Your task to perform on an android device: Clear the shopping cart on ebay.com. Add razer nari to the cart on ebay.com Image 0: 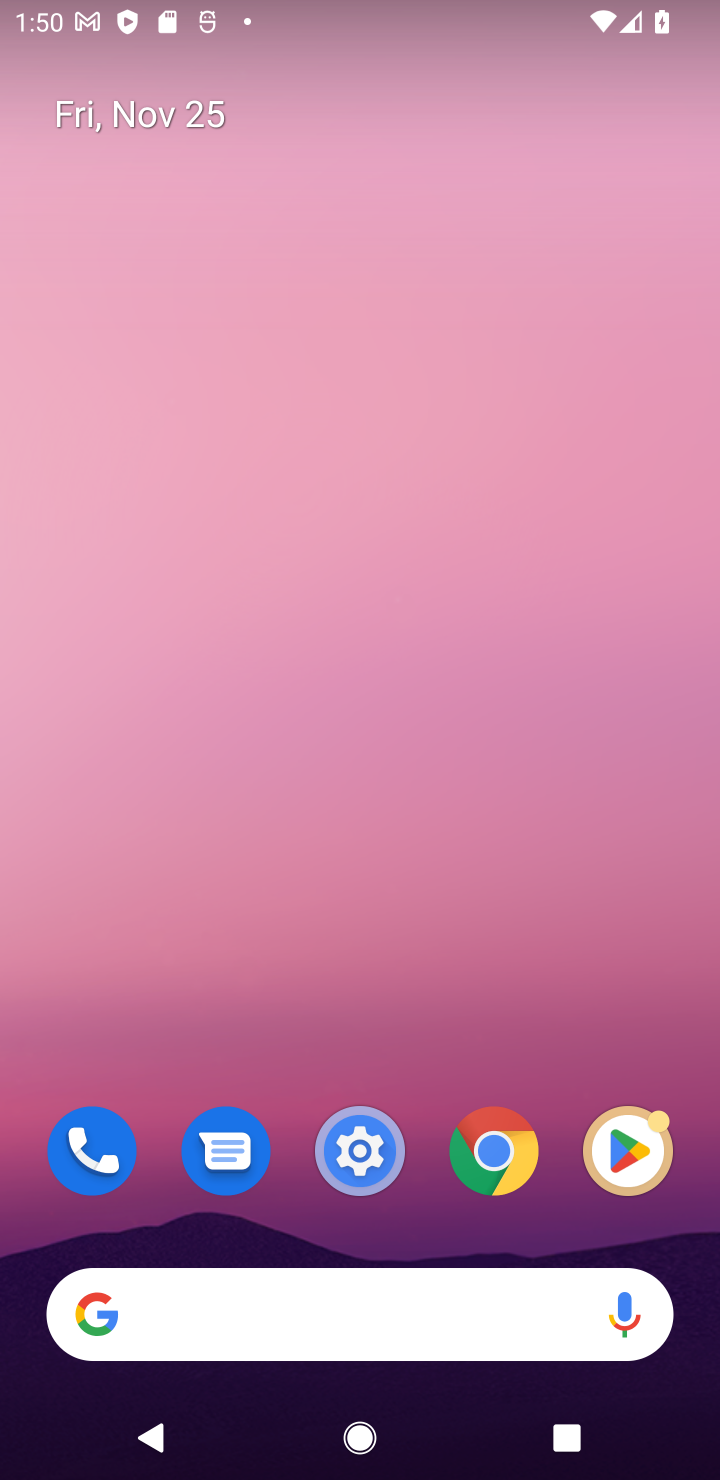
Step 0: press home button
Your task to perform on an android device: Clear the shopping cart on ebay.com. Add razer nari to the cart on ebay.com Image 1: 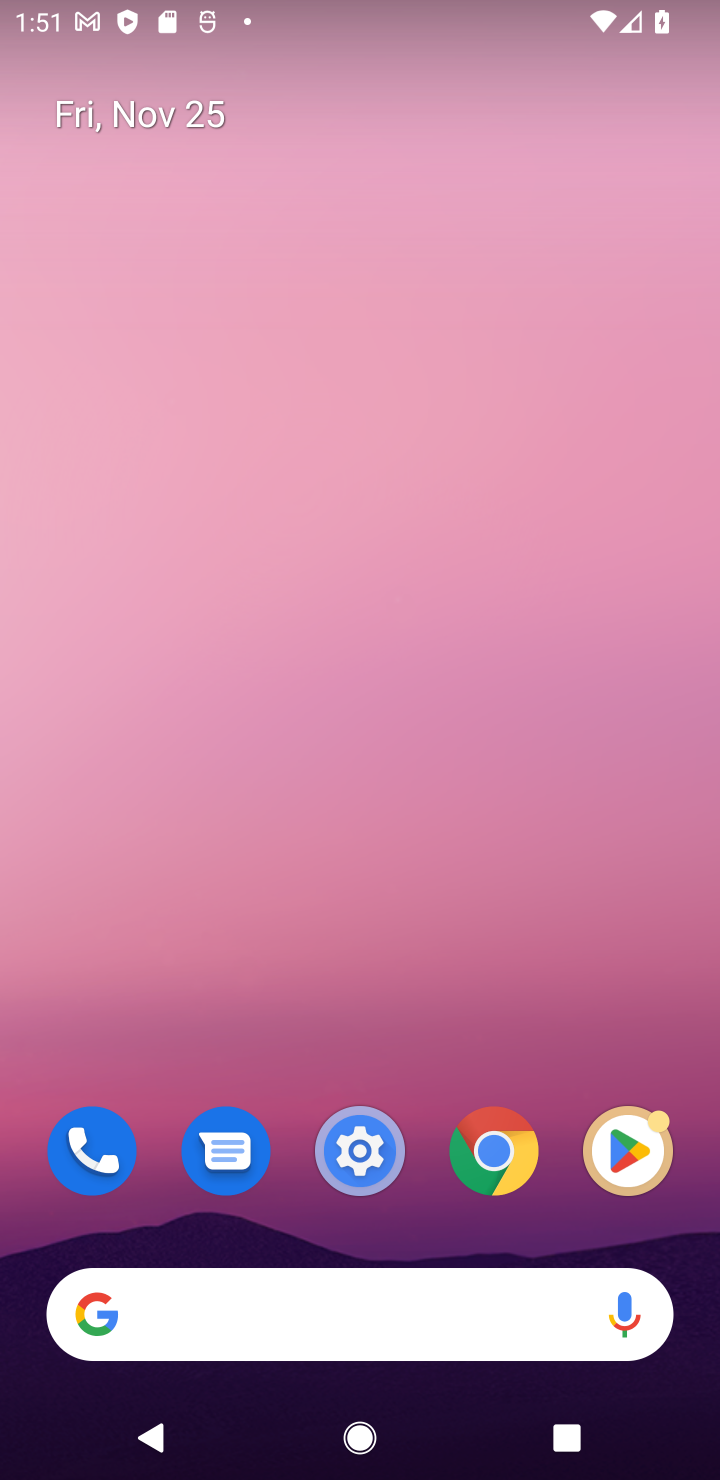
Step 1: click (305, 1292)
Your task to perform on an android device: Clear the shopping cart on ebay.com. Add razer nari to the cart on ebay.com Image 2: 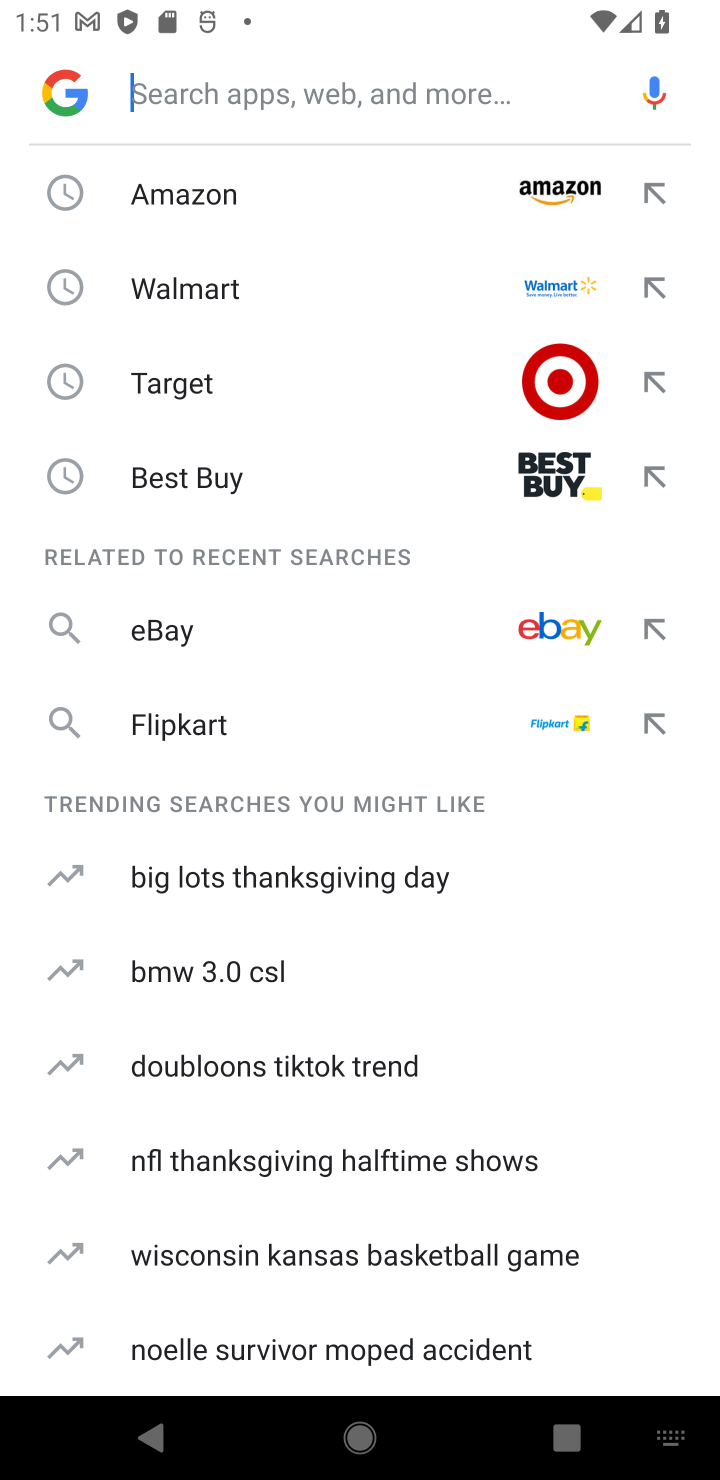
Step 2: click (464, 653)
Your task to perform on an android device: Clear the shopping cart on ebay.com. Add razer nari to the cart on ebay.com Image 3: 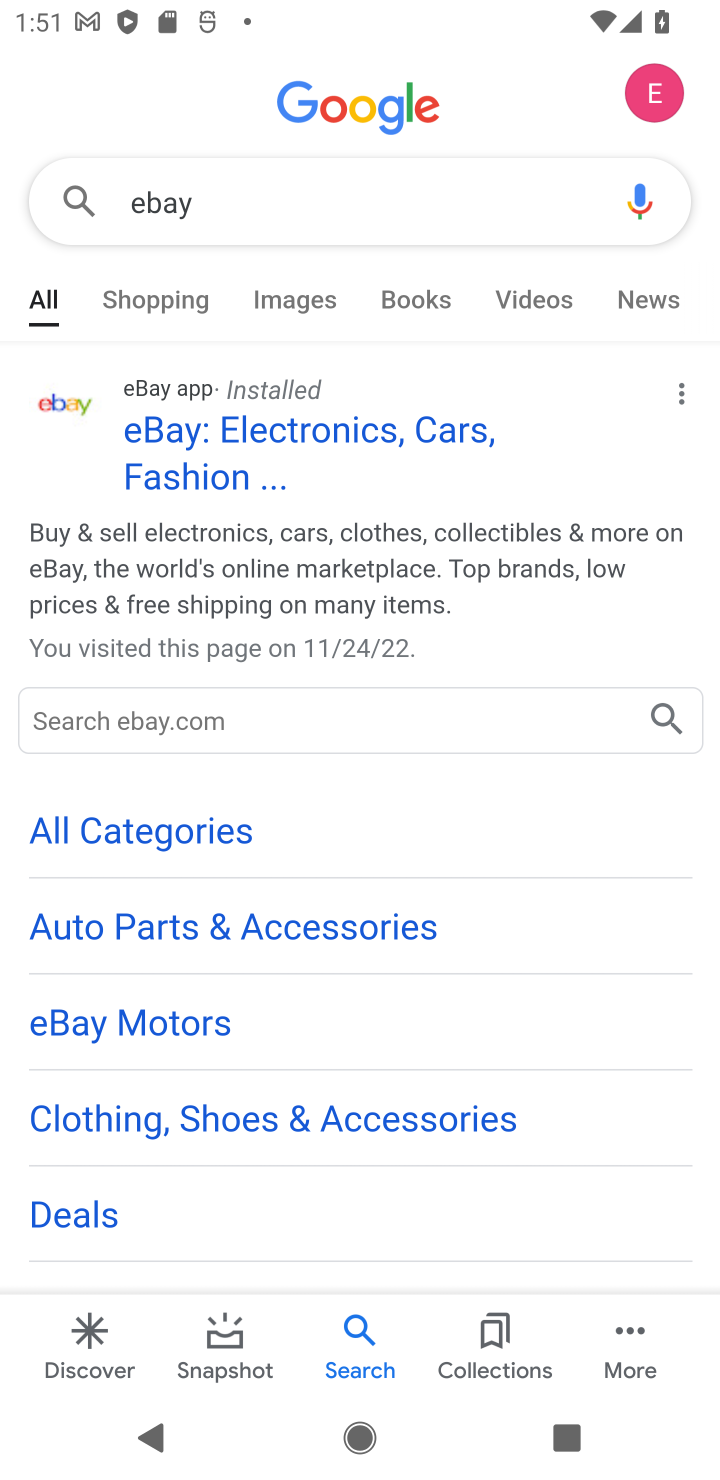
Step 3: click (190, 415)
Your task to perform on an android device: Clear the shopping cart on ebay.com. Add razer nari to the cart on ebay.com Image 4: 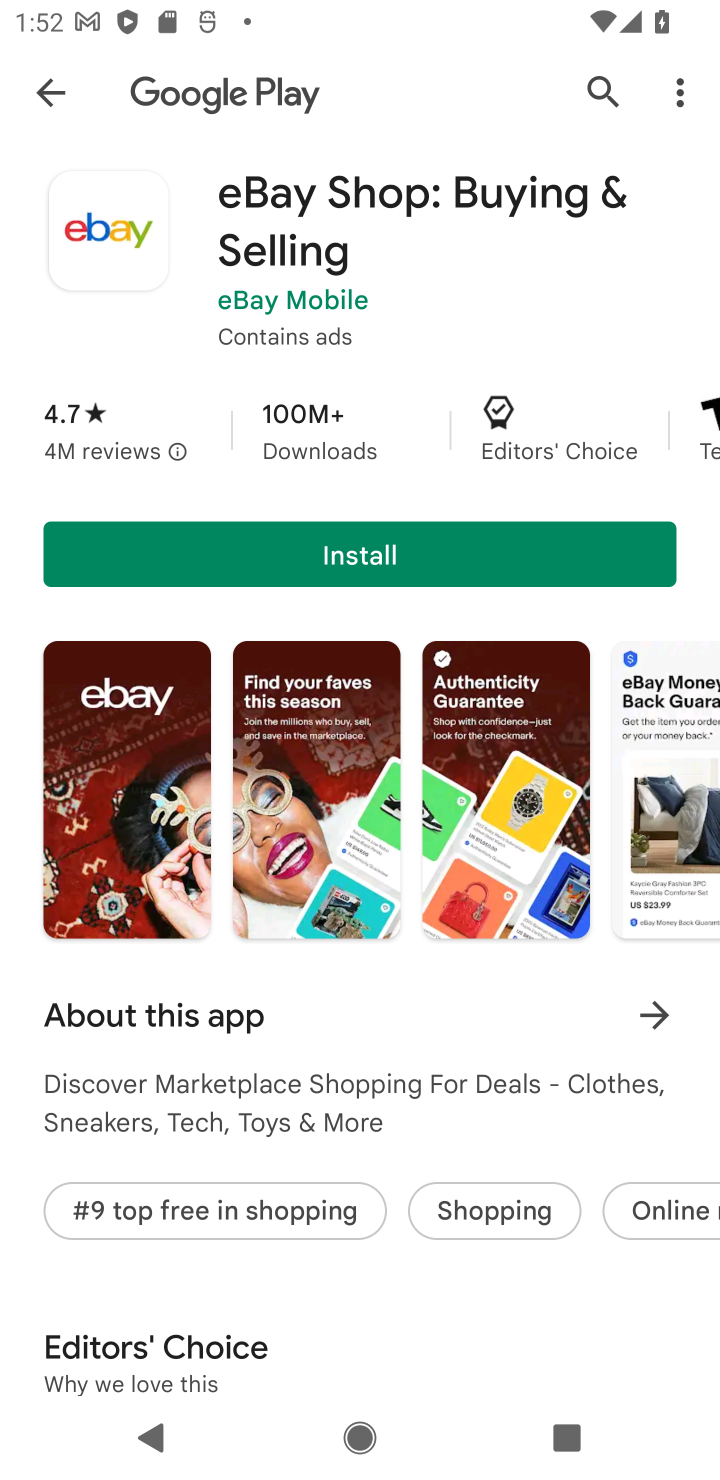
Step 4: press home button
Your task to perform on an android device: Clear the shopping cart on ebay.com. Add razer nari to the cart on ebay.com Image 5: 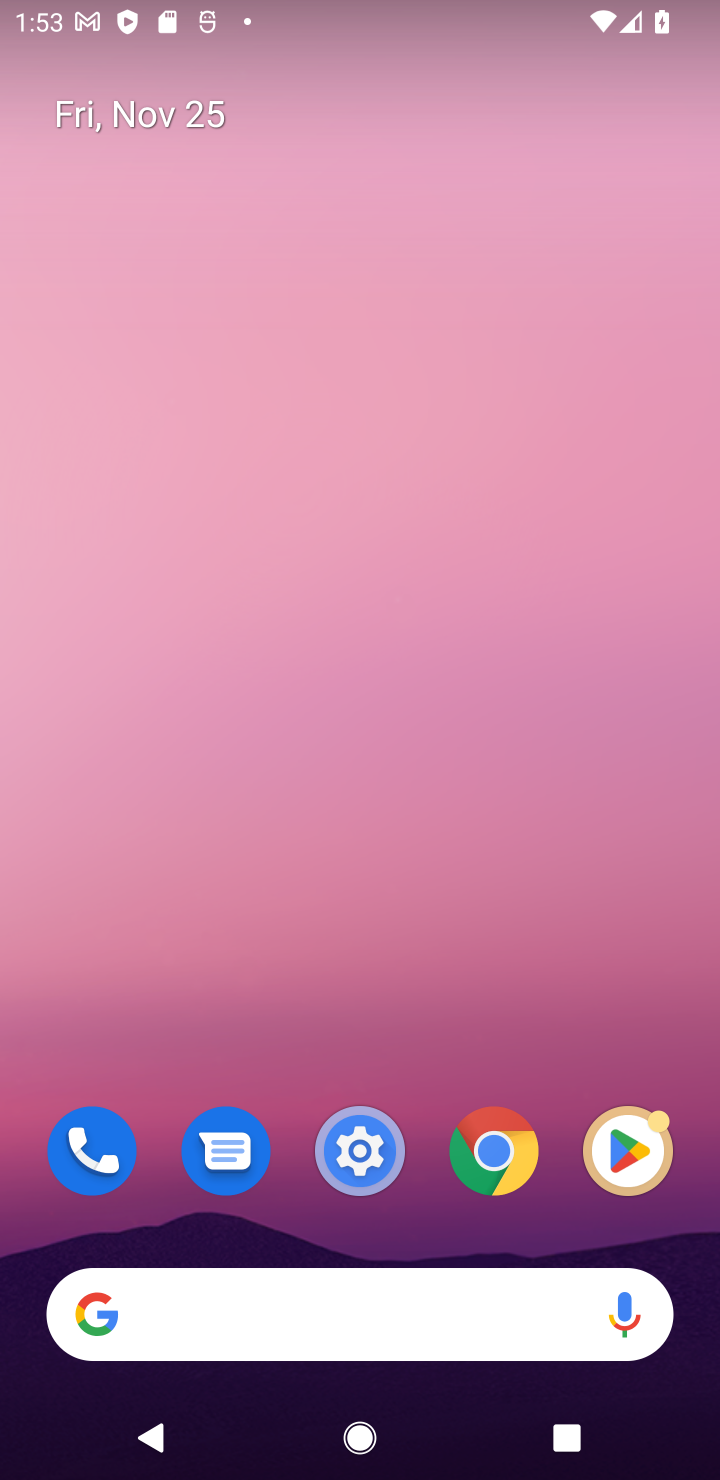
Step 5: click (445, 1304)
Your task to perform on an android device: Clear the shopping cart on ebay.com. Add razer nari to the cart on ebay.com Image 6: 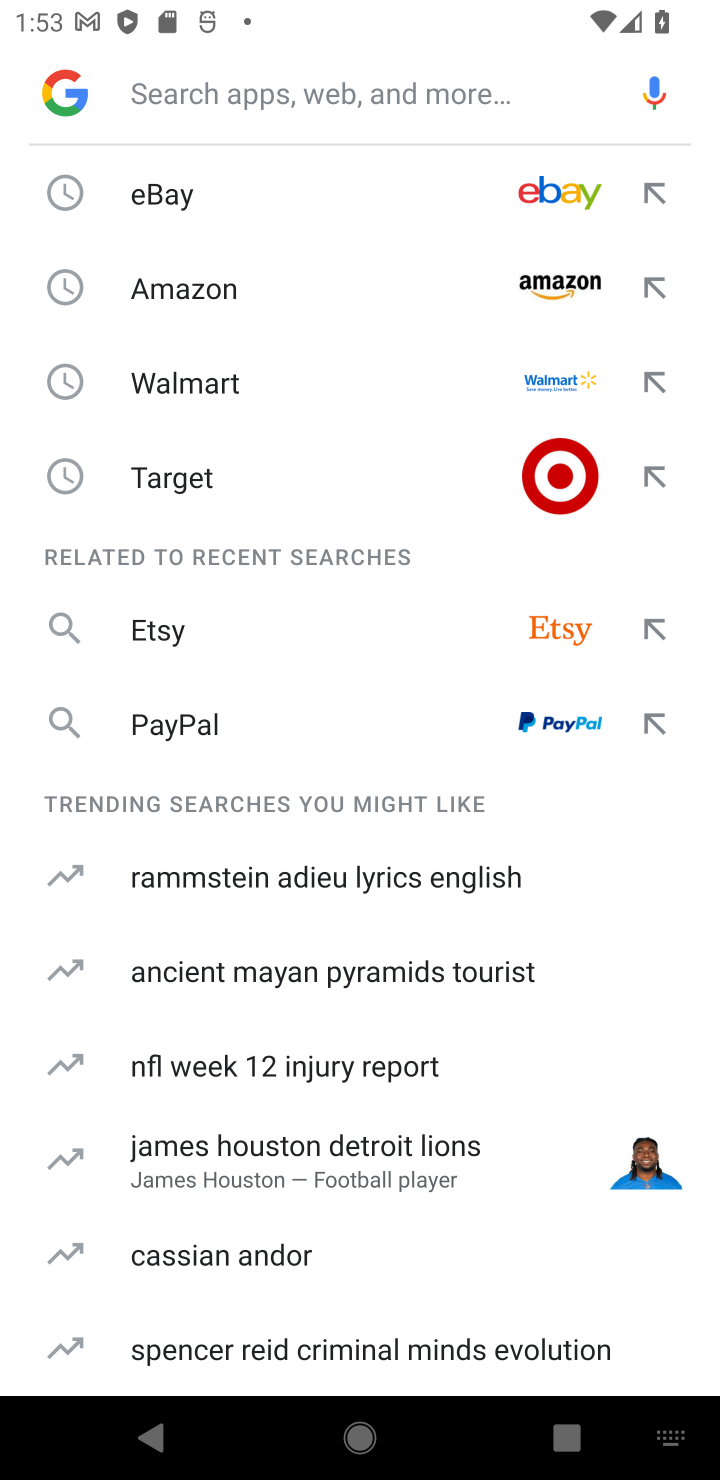
Step 6: type "ebay.com"
Your task to perform on an android device: Clear the shopping cart on ebay.com. Add razer nari to the cart on ebay.com Image 7: 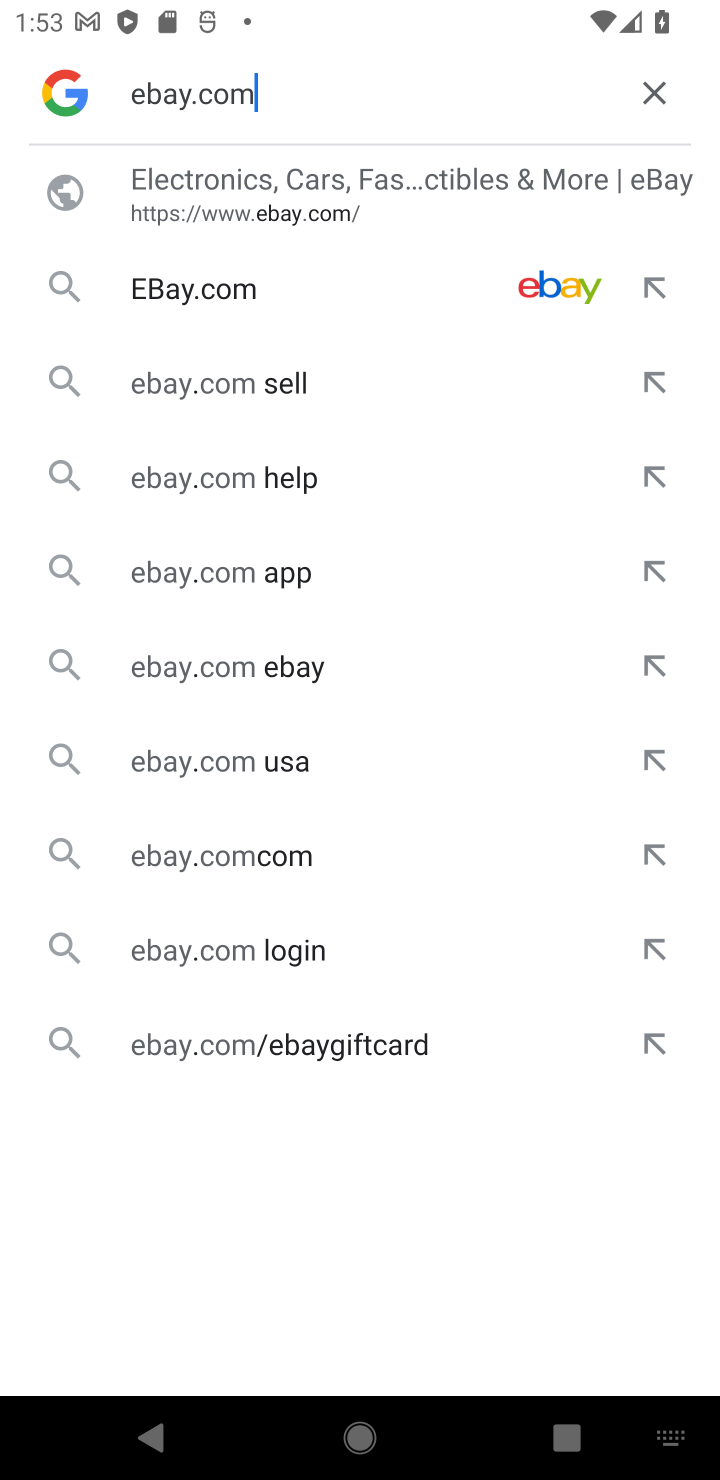
Step 7: click (284, 257)
Your task to perform on an android device: Clear the shopping cart on ebay.com. Add razer nari to the cart on ebay.com Image 8: 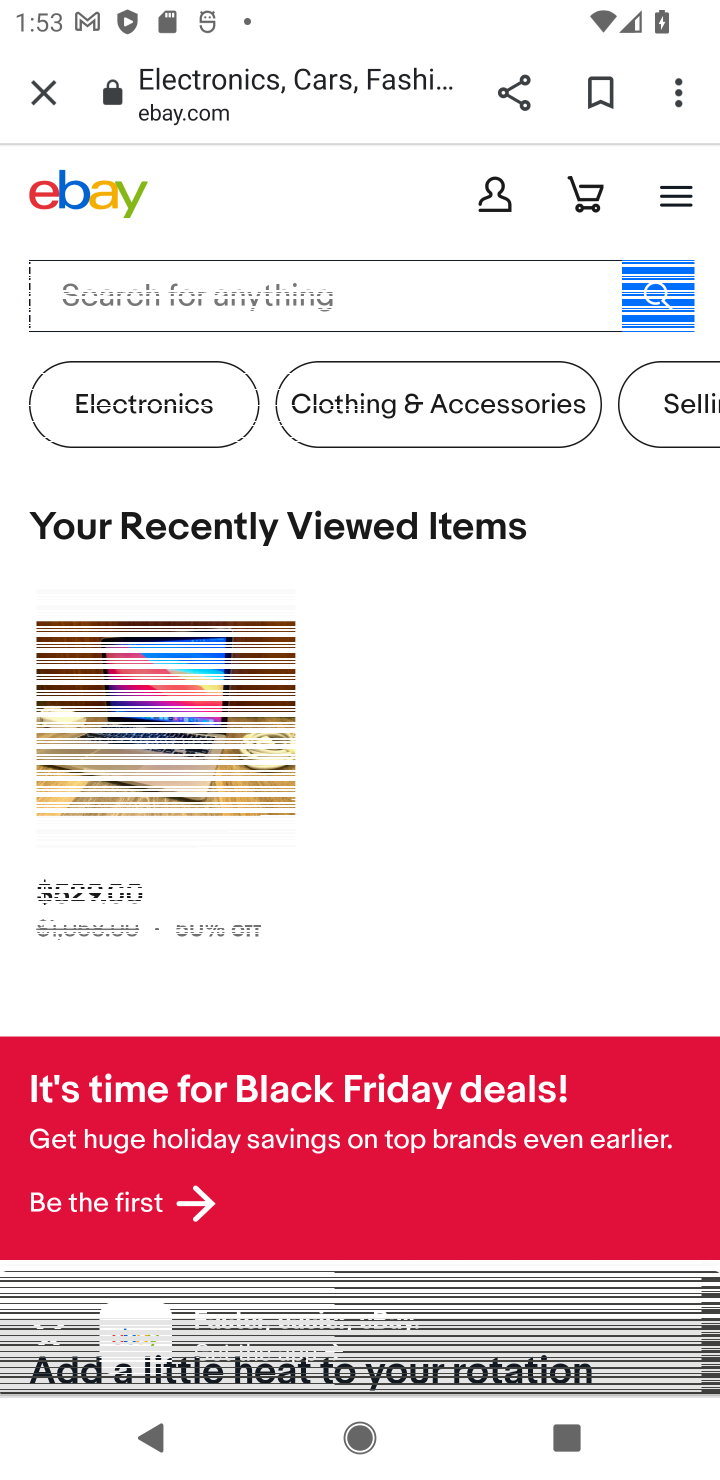
Step 8: click (351, 288)
Your task to perform on an android device: Clear the shopping cart on ebay.com. Add razer nari to the cart on ebay.com Image 9: 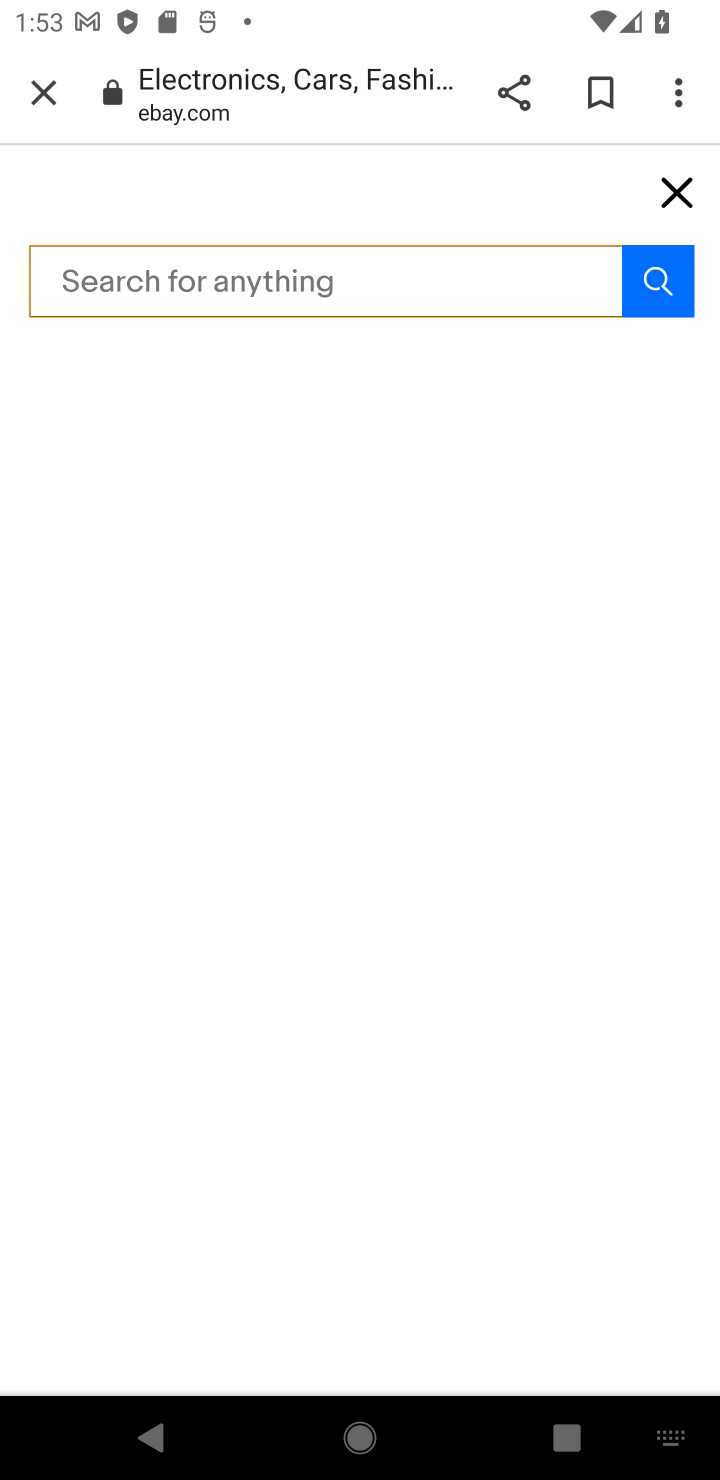
Step 9: type "razer"
Your task to perform on an android device: Clear the shopping cart on ebay.com. Add razer nari to the cart on ebay.com Image 10: 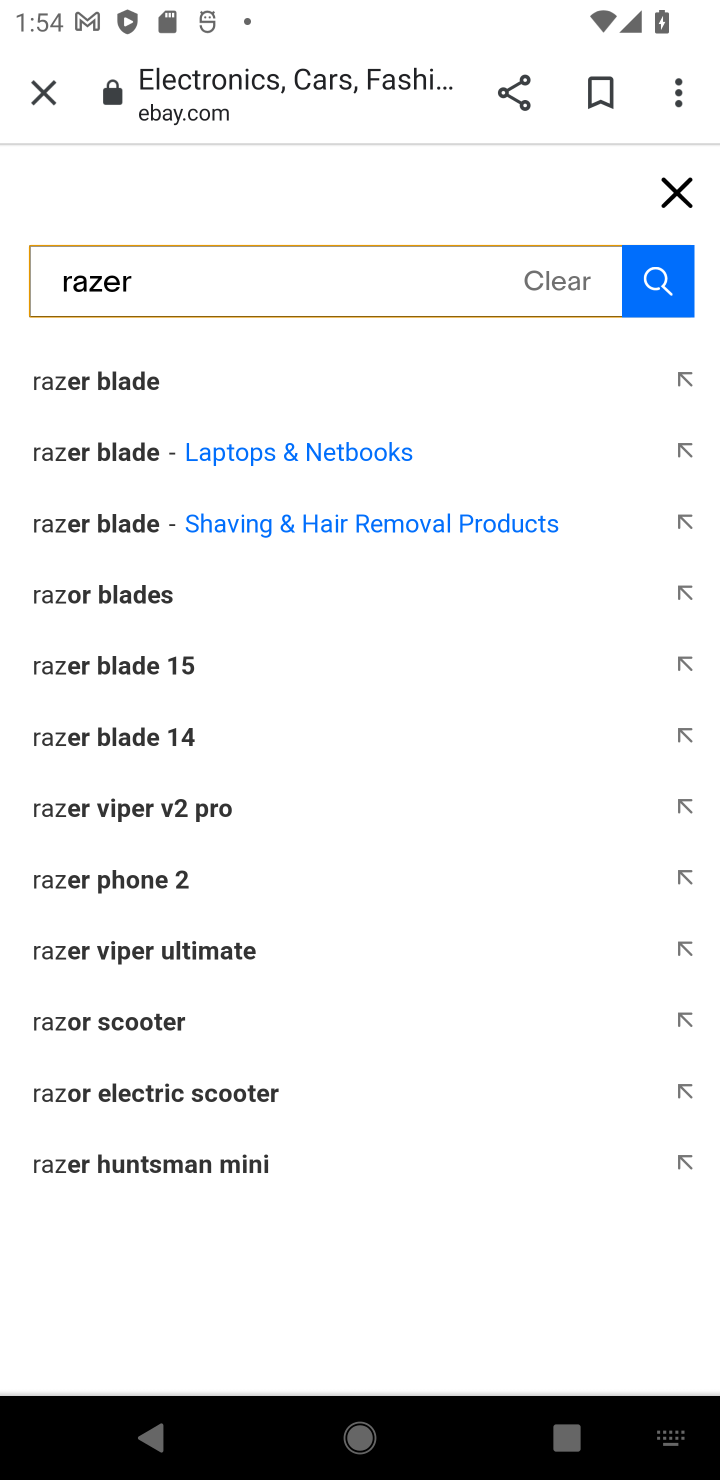
Step 10: type " nari"
Your task to perform on an android device: Clear the shopping cart on ebay.com. Add razer nari to the cart on ebay.com Image 11: 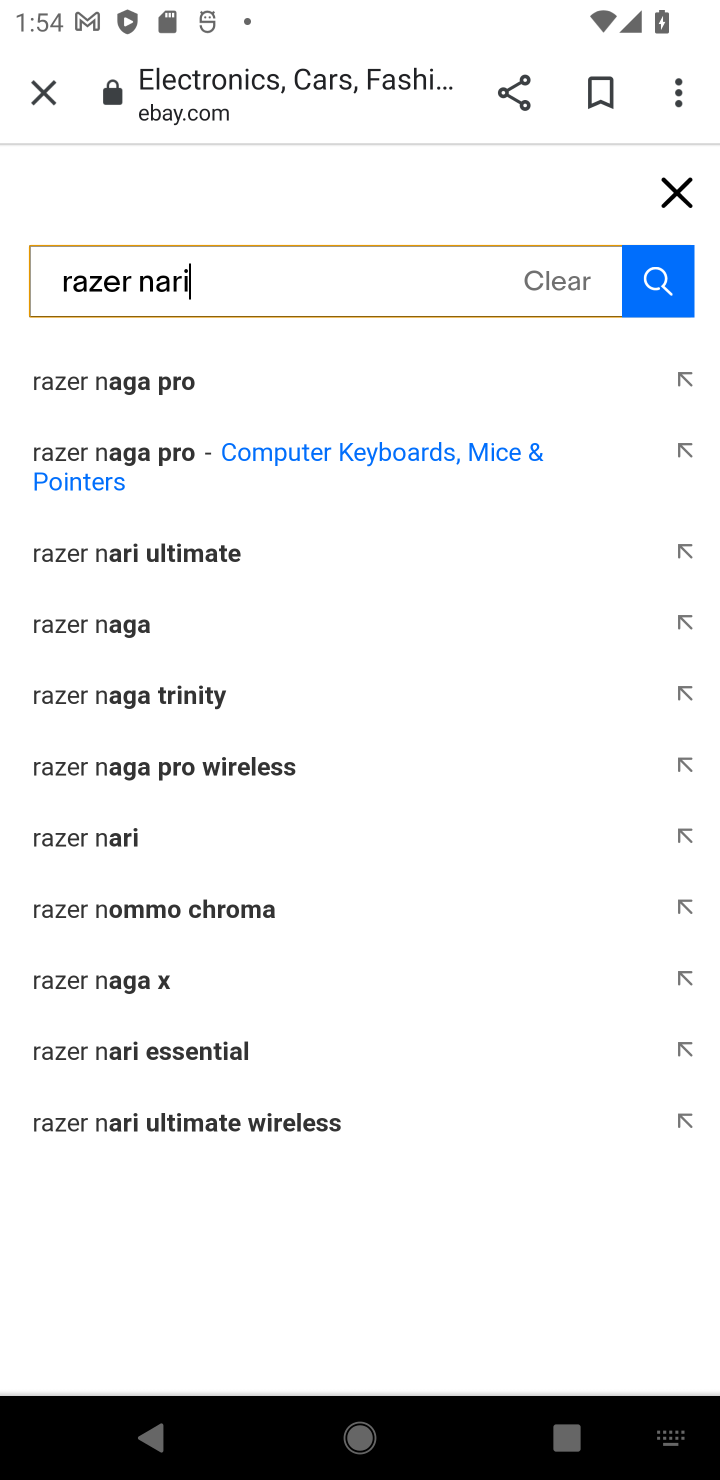
Step 11: click (673, 297)
Your task to perform on an android device: Clear the shopping cart on ebay.com. Add razer nari to the cart on ebay.com Image 12: 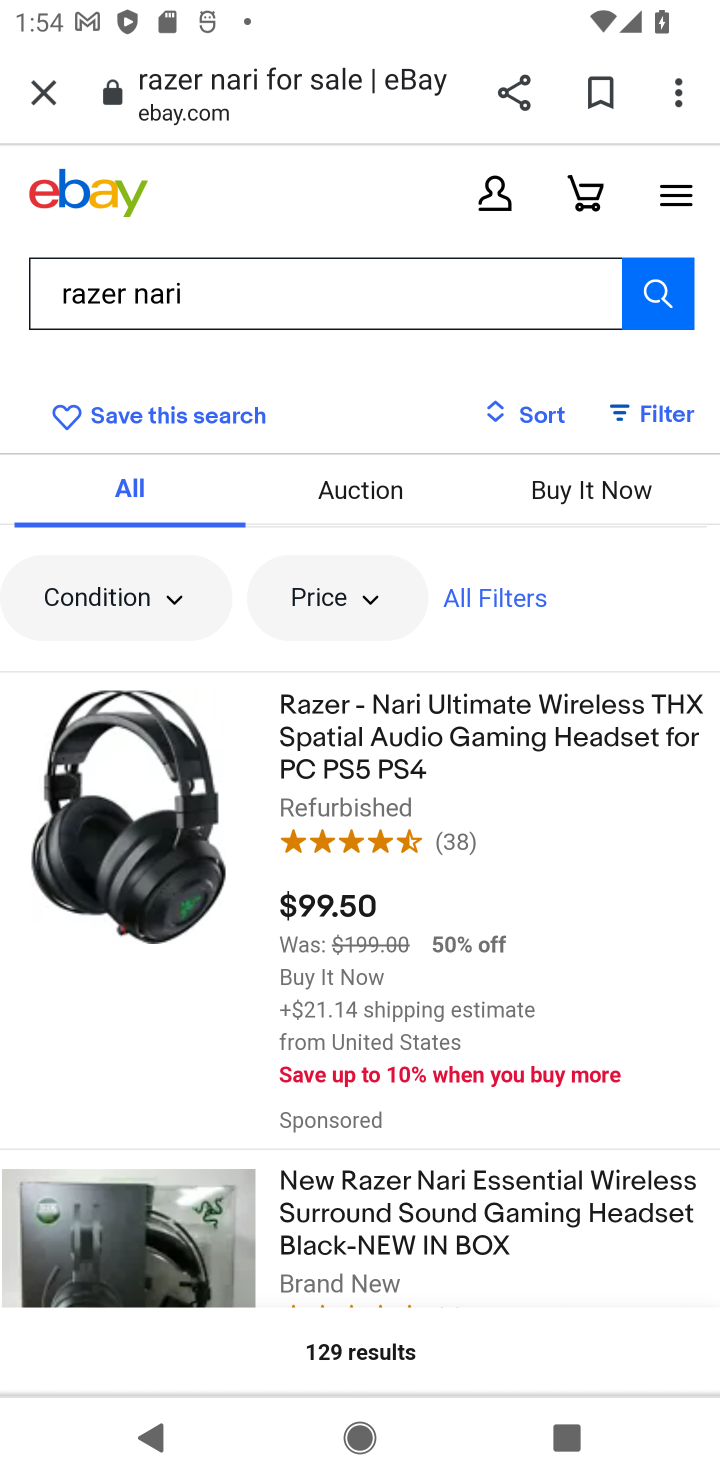
Step 12: click (477, 720)
Your task to perform on an android device: Clear the shopping cart on ebay.com. Add razer nari to the cart on ebay.com Image 13: 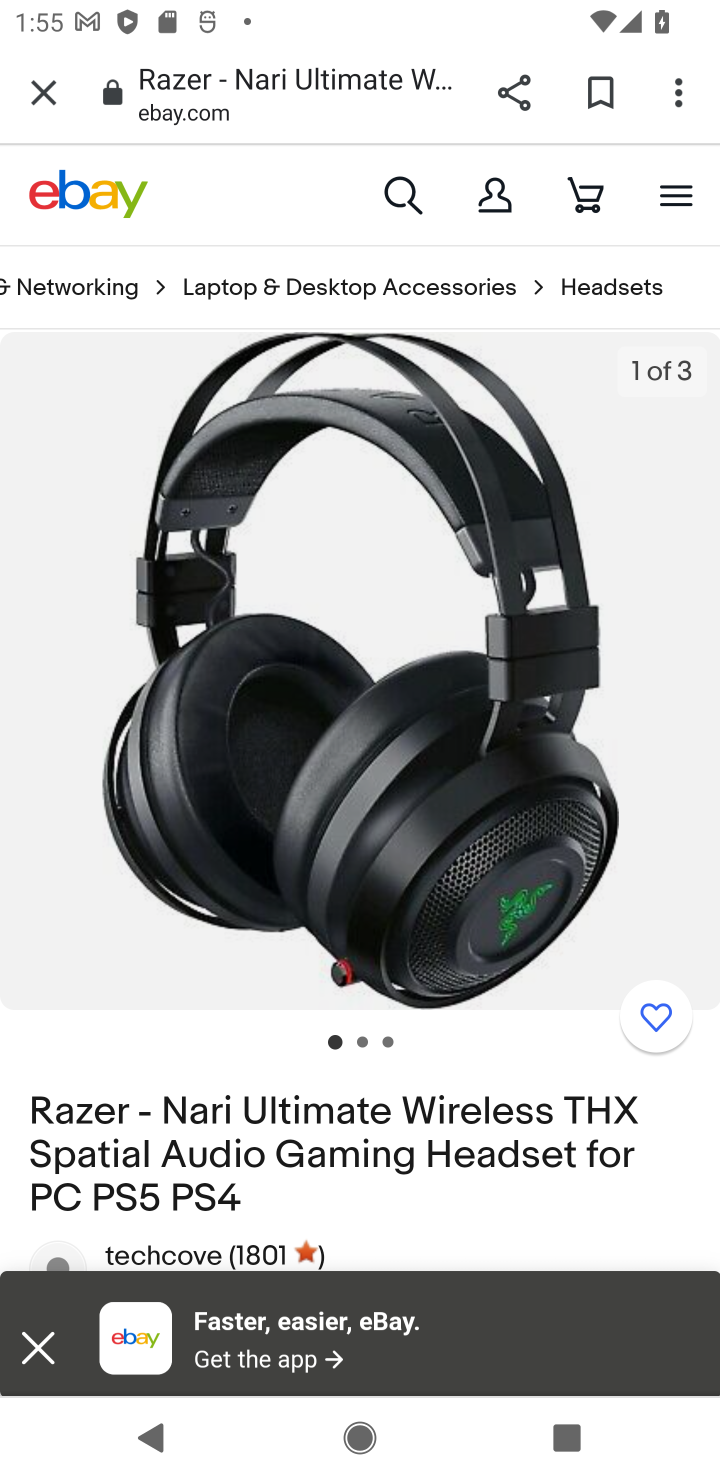
Step 13: click (62, 1350)
Your task to perform on an android device: Clear the shopping cart on ebay.com. Add razer nari to the cart on ebay.com Image 14: 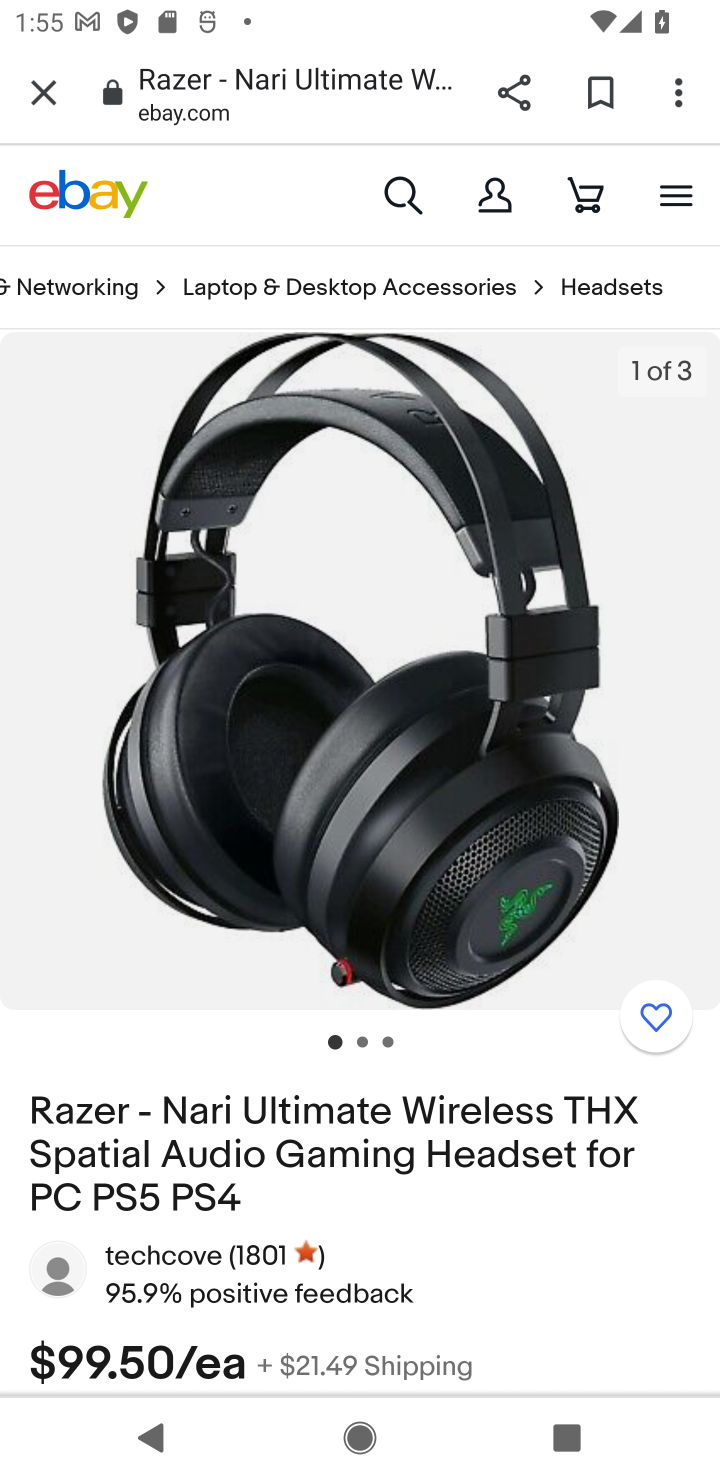
Step 14: drag from (439, 997) to (433, 670)
Your task to perform on an android device: Clear the shopping cart on ebay.com. Add razer nari to the cart on ebay.com Image 15: 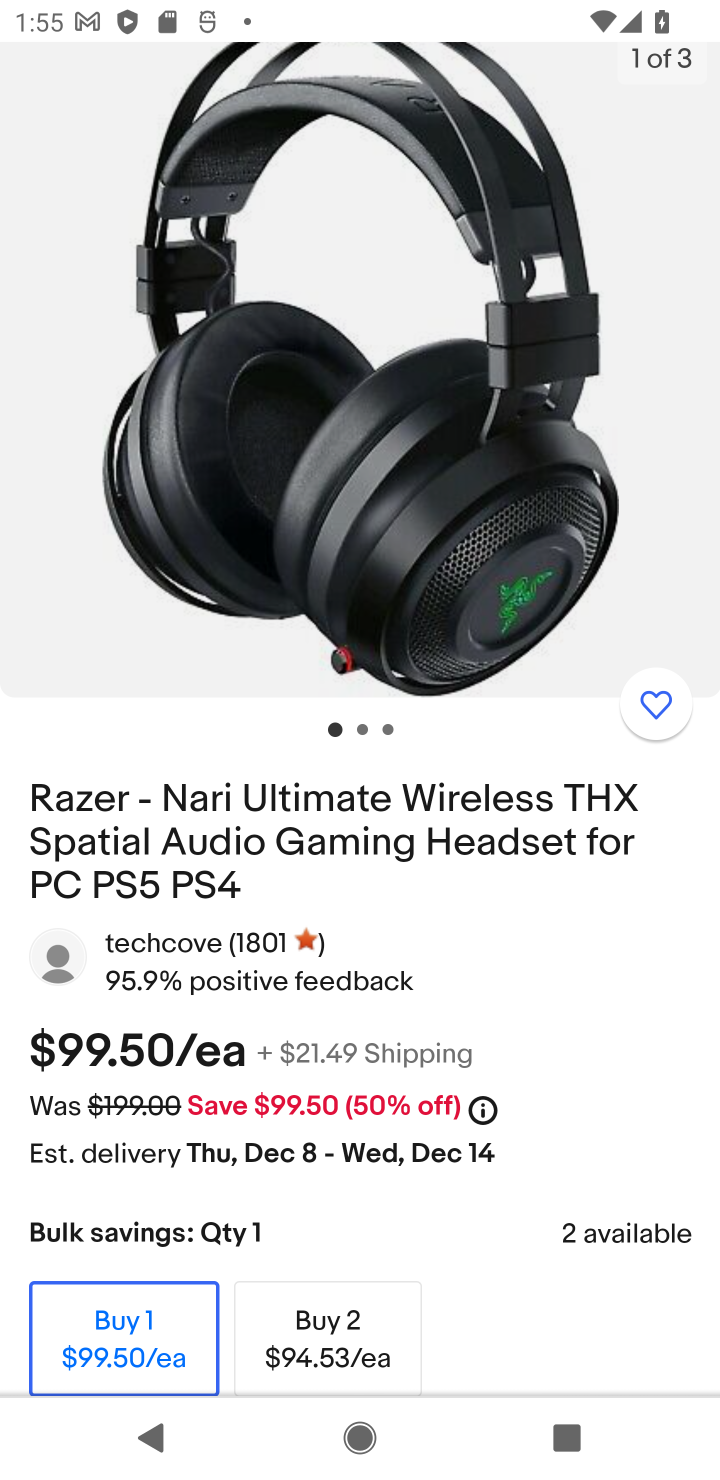
Step 15: drag from (500, 1244) to (489, 681)
Your task to perform on an android device: Clear the shopping cart on ebay.com. Add razer nari to the cart on ebay.com Image 16: 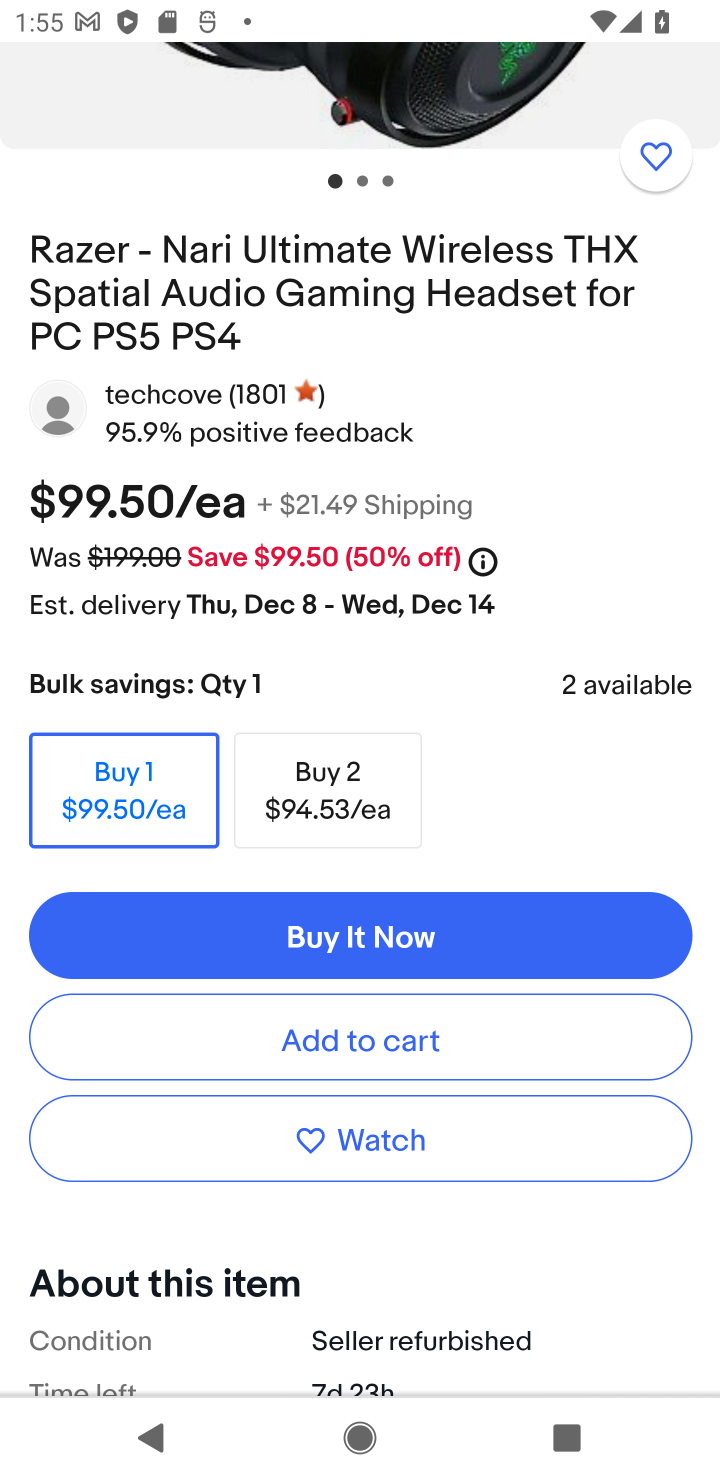
Step 16: click (508, 1021)
Your task to perform on an android device: Clear the shopping cart on ebay.com. Add razer nari to the cart on ebay.com Image 17: 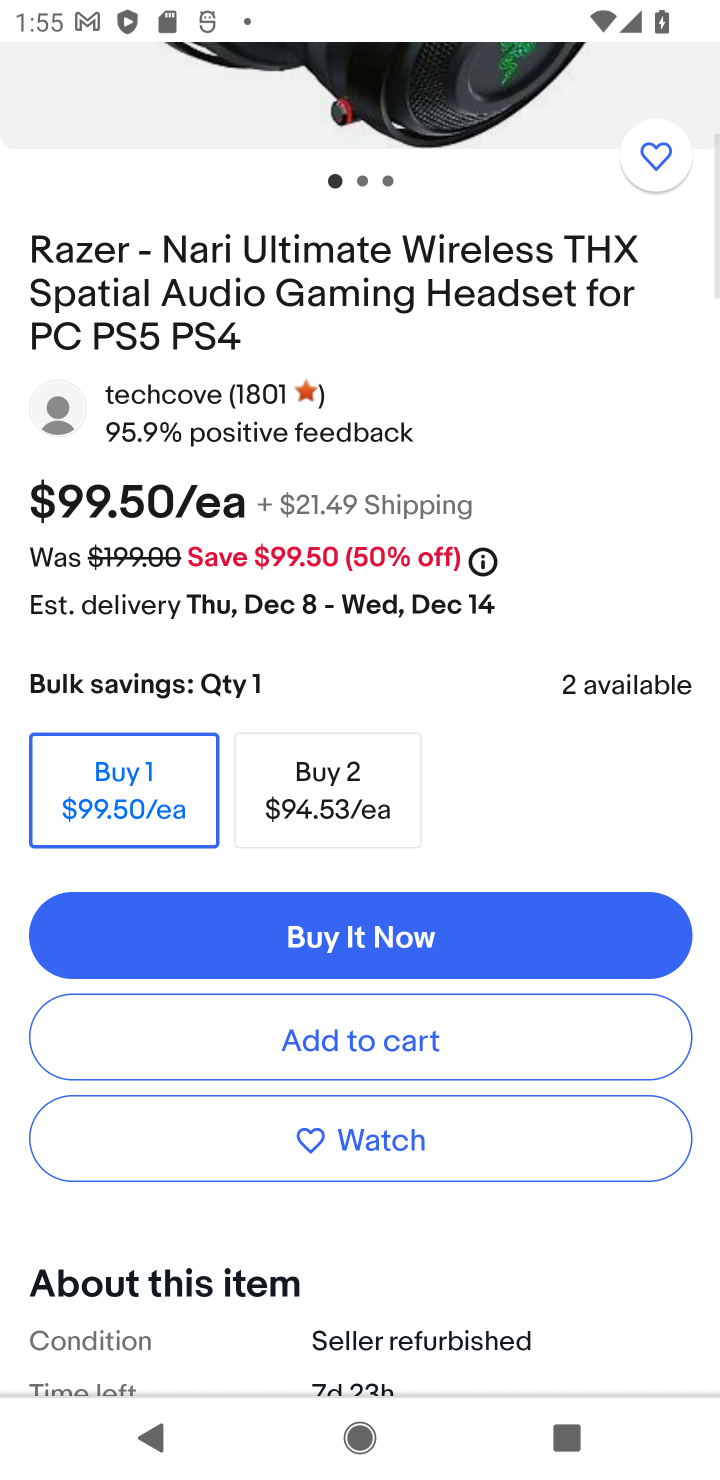
Step 17: task complete